Your task to perform on an android device: turn on bluetooth scan Image 0: 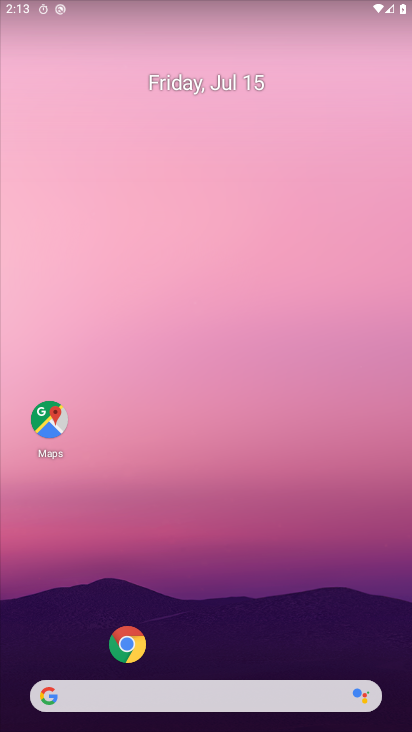
Step 0: drag from (43, 589) to (250, 110)
Your task to perform on an android device: turn on bluetooth scan Image 1: 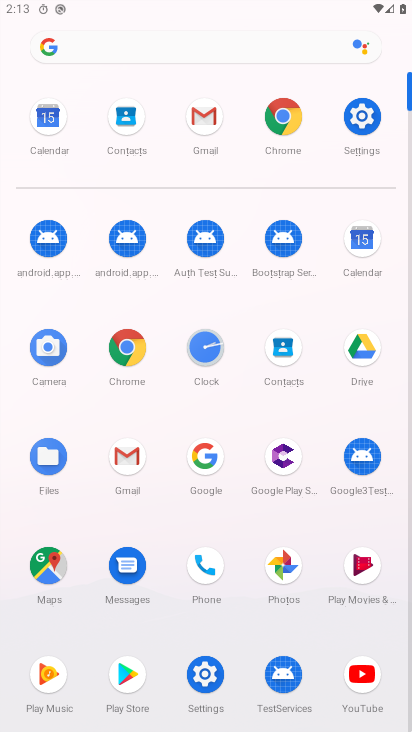
Step 1: click (205, 671)
Your task to perform on an android device: turn on bluetooth scan Image 2: 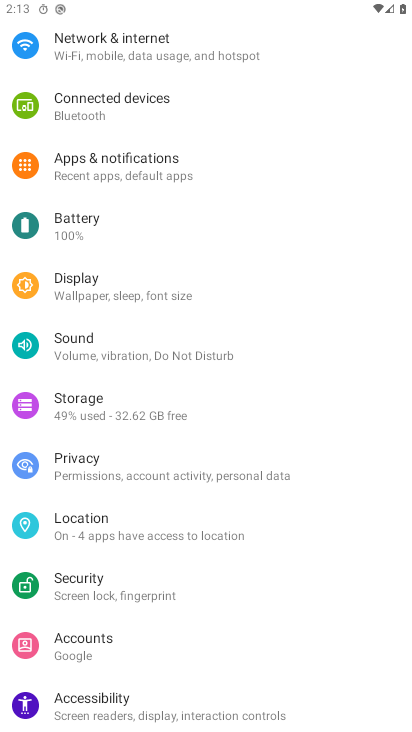
Step 2: click (131, 110)
Your task to perform on an android device: turn on bluetooth scan Image 3: 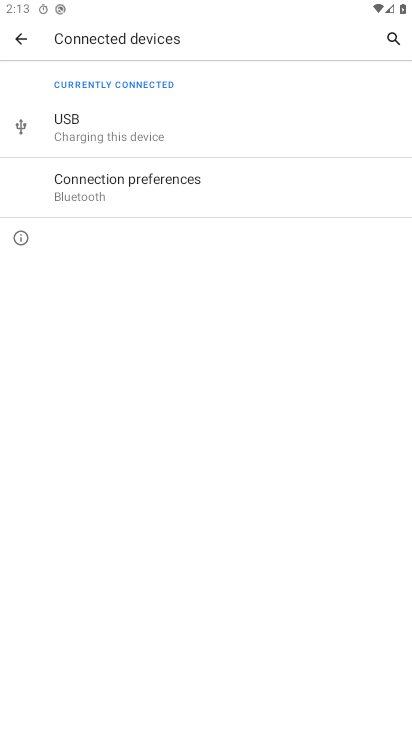
Step 3: click (129, 185)
Your task to perform on an android device: turn on bluetooth scan Image 4: 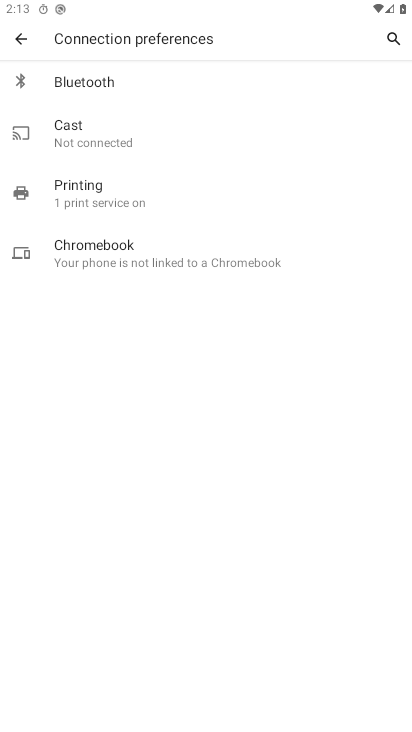
Step 4: click (114, 77)
Your task to perform on an android device: turn on bluetooth scan Image 5: 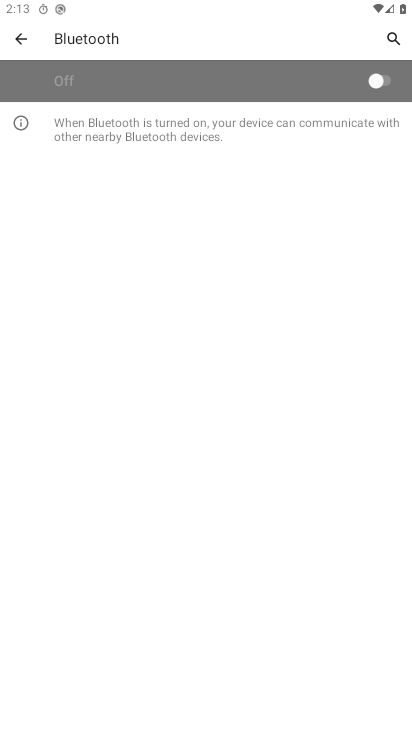
Step 5: click (374, 83)
Your task to perform on an android device: turn on bluetooth scan Image 6: 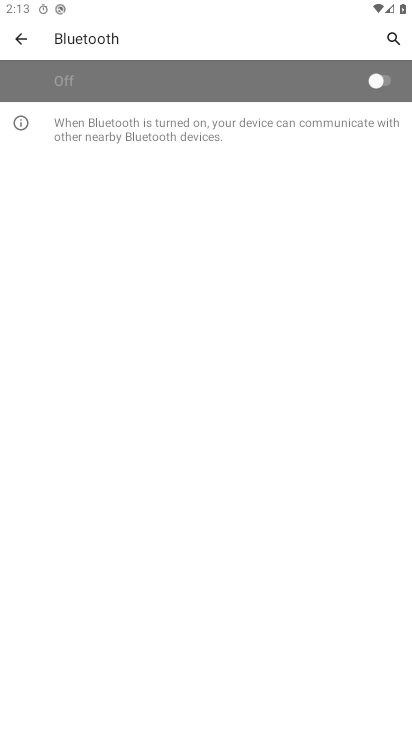
Step 6: task complete